Your task to perform on an android device: Go to calendar. Show me events next week Image 0: 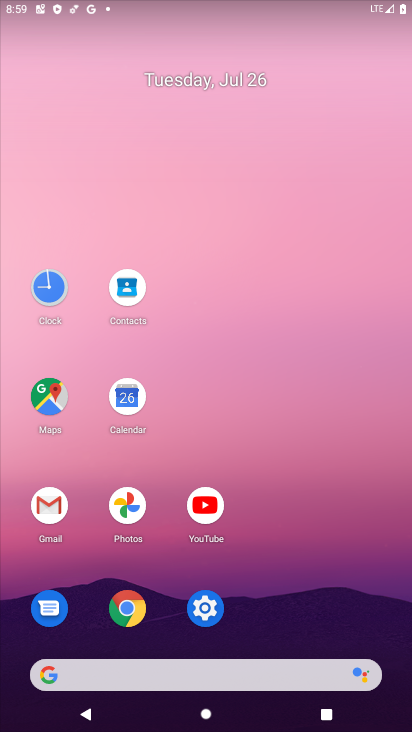
Step 0: click (129, 404)
Your task to perform on an android device: Go to calendar. Show me events next week Image 1: 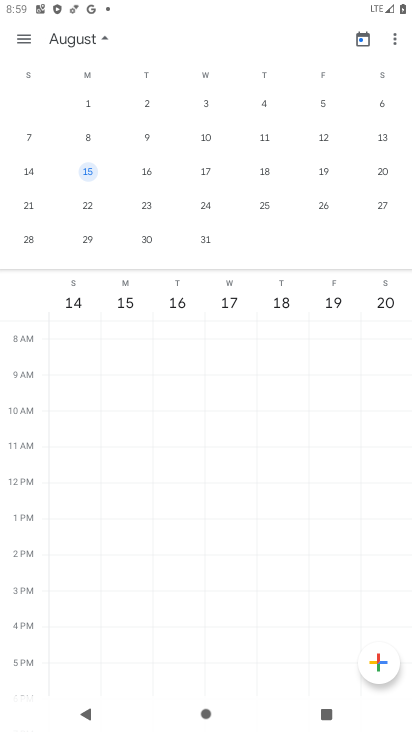
Step 1: click (86, 104)
Your task to perform on an android device: Go to calendar. Show me events next week Image 2: 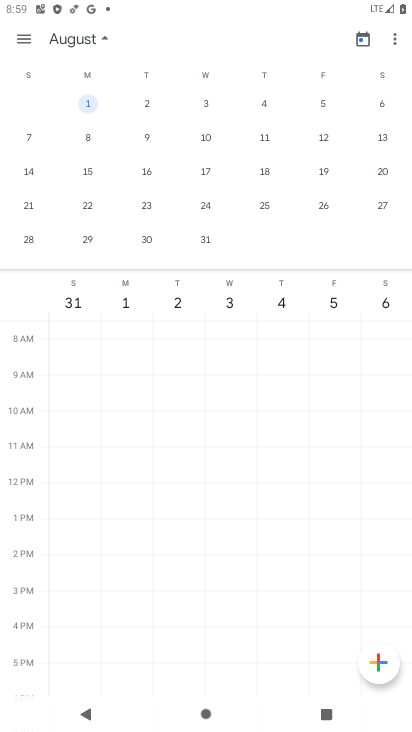
Step 2: task complete